Your task to perform on an android device: add a label to a message in the gmail app Image 0: 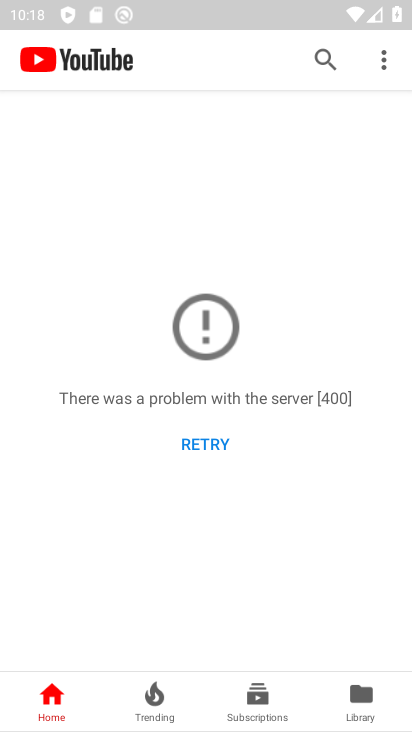
Step 0: press home button
Your task to perform on an android device: add a label to a message in the gmail app Image 1: 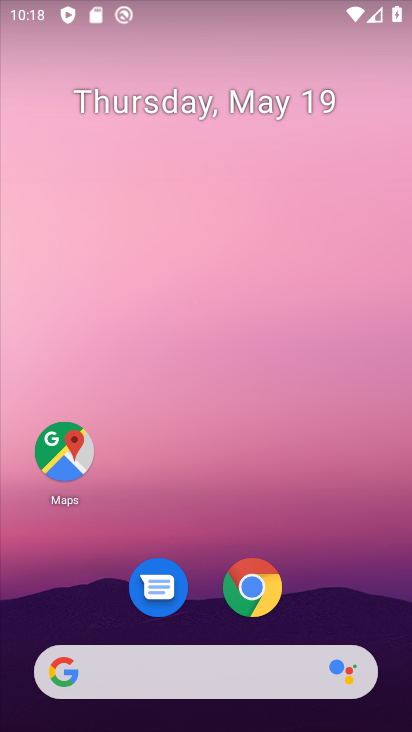
Step 1: drag from (367, 599) to (318, 123)
Your task to perform on an android device: add a label to a message in the gmail app Image 2: 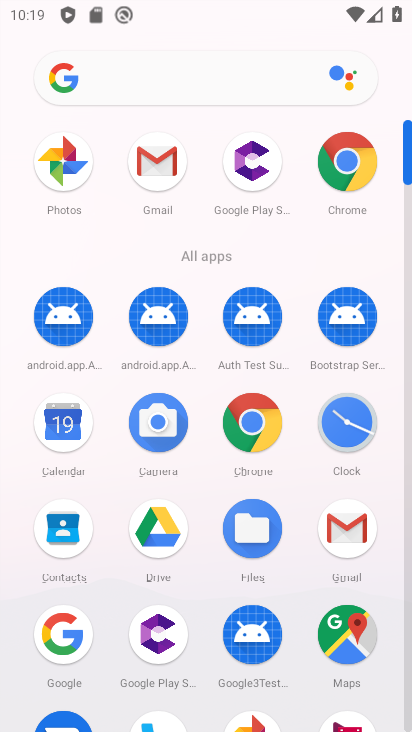
Step 2: click (349, 529)
Your task to perform on an android device: add a label to a message in the gmail app Image 3: 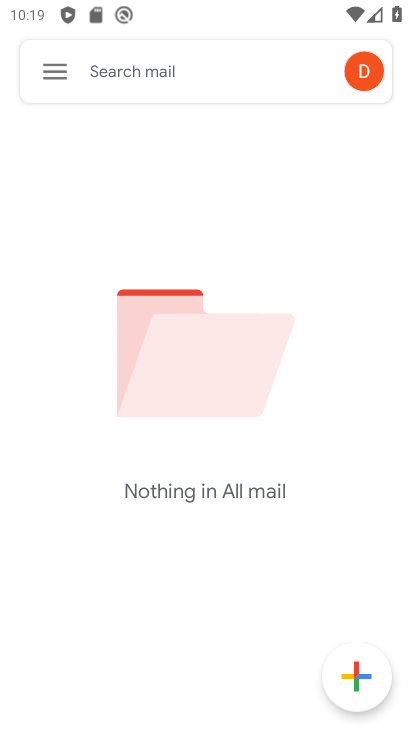
Step 3: click (47, 75)
Your task to perform on an android device: add a label to a message in the gmail app Image 4: 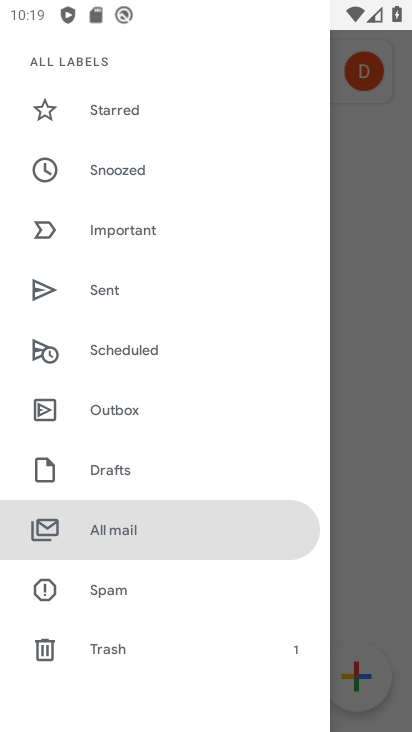
Step 4: click (235, 526)
Your task to perform on an android device: add a label to a message in the gmail app Image 5: 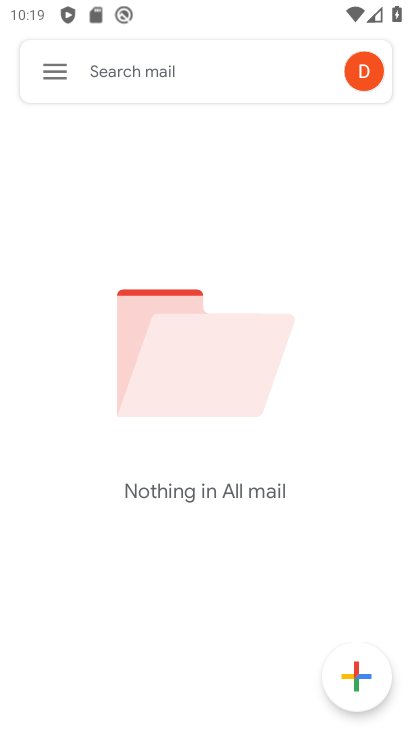
Step 5: task complete